Your task to perform on an android device: Search for a 4k TV on Best Buy Image 0: 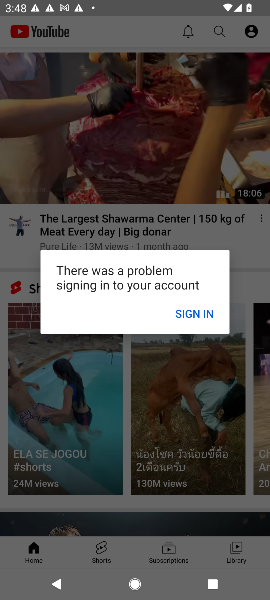
Step 0: press home button
Your task to perform on an android device: Search for a 4k TV on Best Buy Image 1: 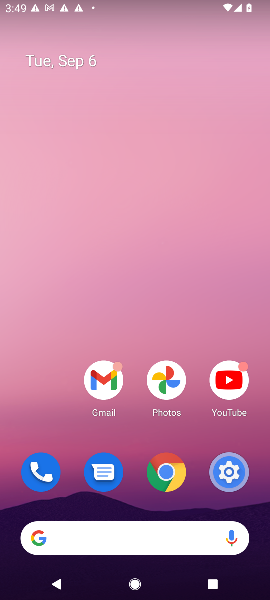
Step 1: click (174, 469)
Your task to perform on an android device: Search for a 4k TV on Best Buy Image 2: 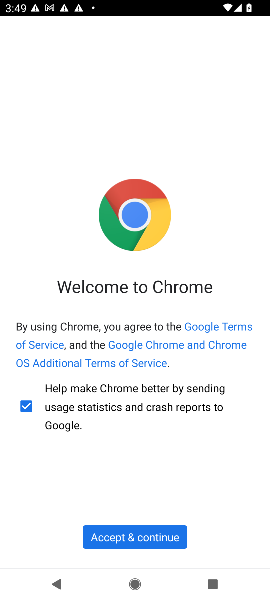
Step 2: click (134, 535)
Your task to perform on an android device: Search for a 4k TV on Best Buy Image 3: 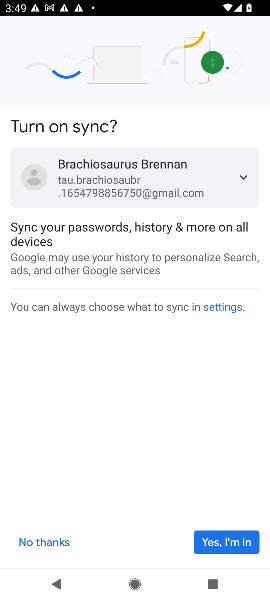
Step 3: click (220, 538)
Your task to perform on an android device: Search for a 4k TV on Best Buy Image 4: 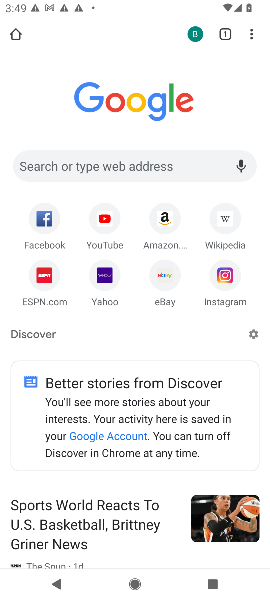
Step 4: click (151, 163)
Your task to perform on an android device: Search for a 4k TV on Best Buy Image 5: 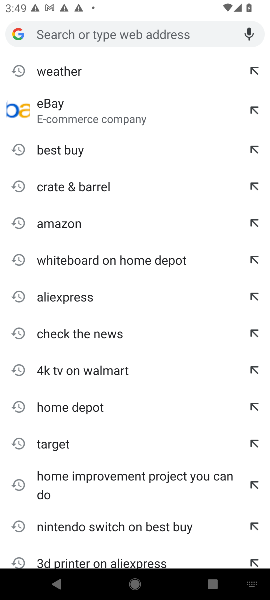
Step 5: type "best buy"
Your task to perform on an android device: Search for a 4k TV on Best Buy Image 6: 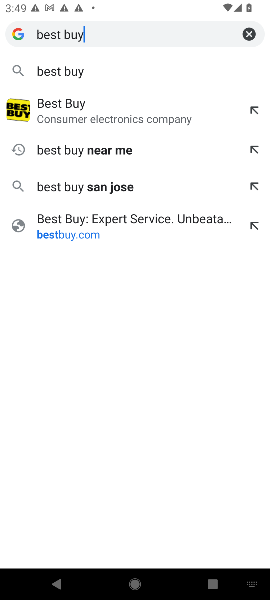
Step 6: click (65, 71)
Your task to perform on an android device: Search for a 4k TV on Best Buy Image 7: 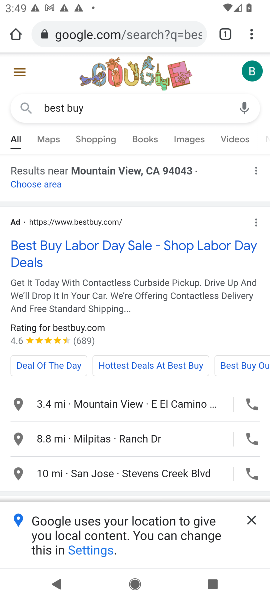
Step 7: click (81, 246)
Your task to perform on an android device: Search for a 4k TV on Best Buy Image 8: 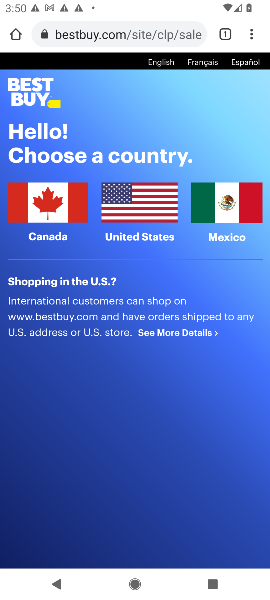
Step 8: click (131, 211)
Your task to perform on an android device: Search for a 4k TV on Best Buy Image 9: 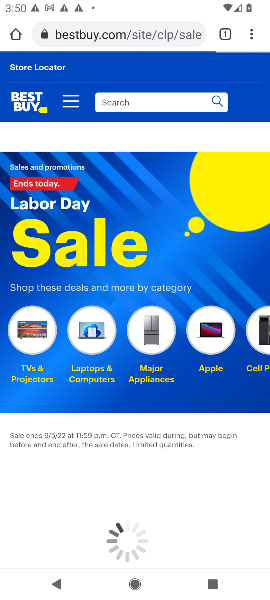
Step 9: click (166, 103)
Your task to perform on an android device: Search for a 4k TV on Best Buy Image 10: 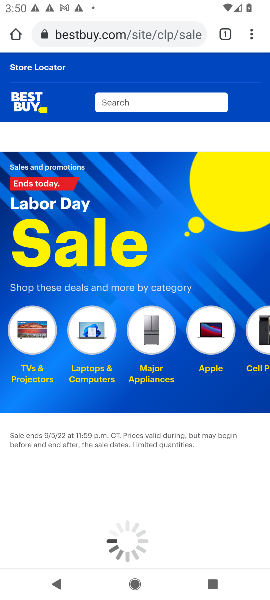
Step 10: type "4k tv"
Your task to perform on an android device: Search for a 4k TV on Best Buy Image 11: 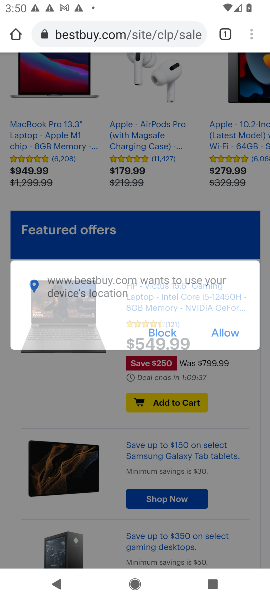
Step 11: drag from (213, 166) to (213, 332)
Your task to perform on an android device: Search for a 4k TV on Best Buy Image 12: 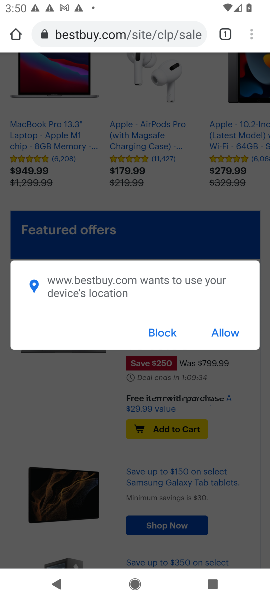
Step 12: click (168, 334)
Your task to perform on an android device: Search for a 4k TV on Best Buy Image 13: 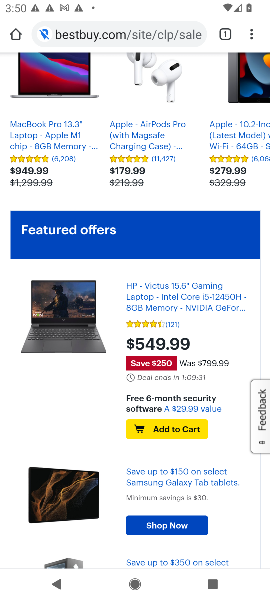
Step 13: drag from (175, 169) to (174, 474)
Your task to perform on an android device: Search for a 4k TV on Best Buy Image 14: 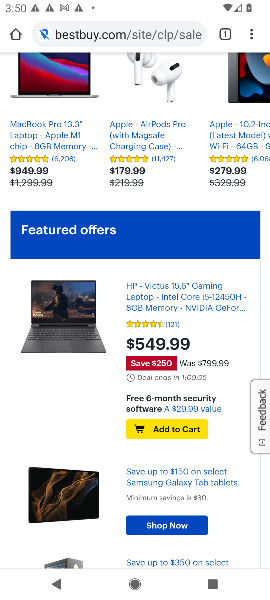
Step 14: drag from (190, 105) to (195, 480)
Your task to perform on an android device: Search for a 4k TV on Best Buy Image 15: 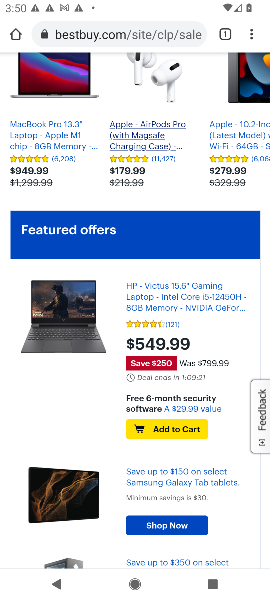
Step 15: drag from (96, 126) to (108, 471)
Your task to perform on an android device: Search for a 4k TV on Best Buy Image 16: 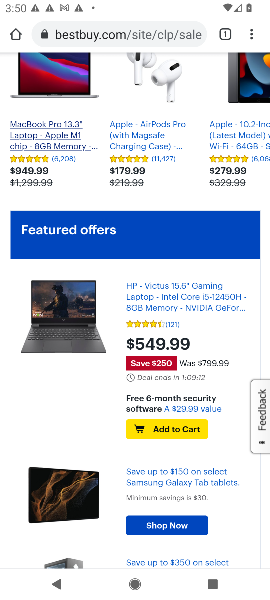
Step 16: drag from (183, 194) to (177, 372)
Your task to perform on an android device: Search for a 4k TV on Best Buy Image 17: 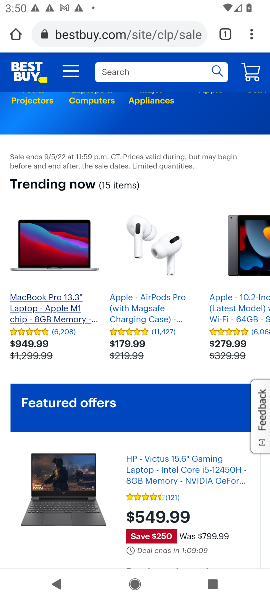
Step 17: click (136, 71)
Your task to perform on an android device: Search for a 4k TV on Best Buy Image 18: 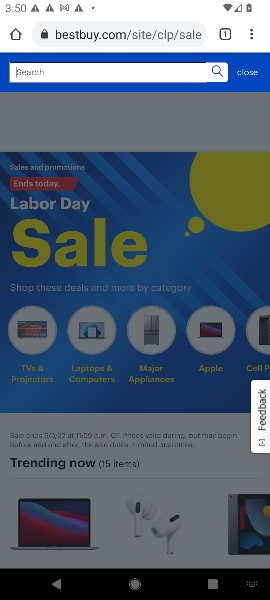
Step 18: type "4k tv"
Your task to perform on an android device: Search for a 4k TV on Best Buy Image 19: 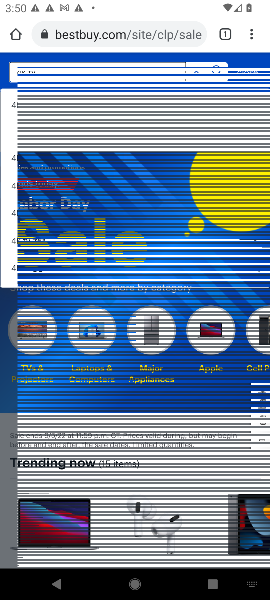
Step 19: click (214, 75)
Your task to perform on an android device: Search for a 4k TV on Best Buy Image 20: 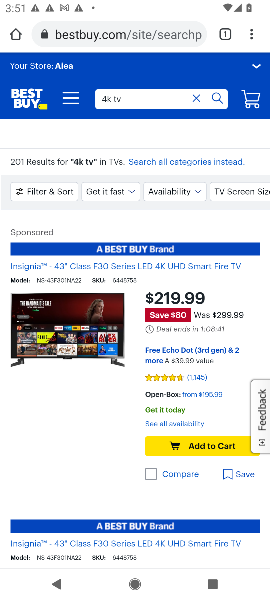
Step 20: task complete